Your task to perform on an android device: toggle priority inbox in the gmail app Image 0: 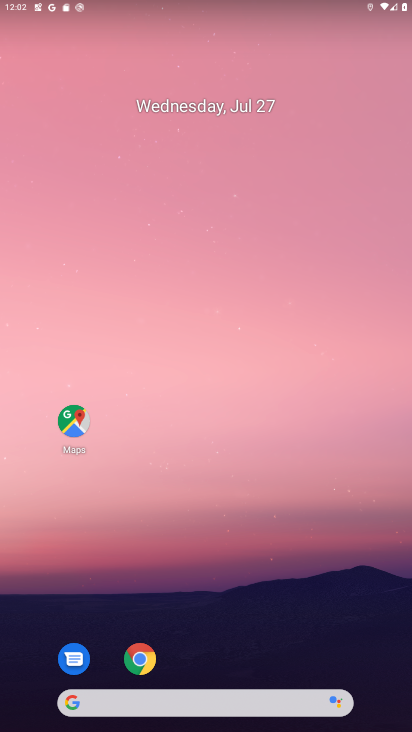
Step 0: drag from (297, 698) to (344, 21)
Your task to perform on an android device: toggle priority inbox in the gmail app Image 1: 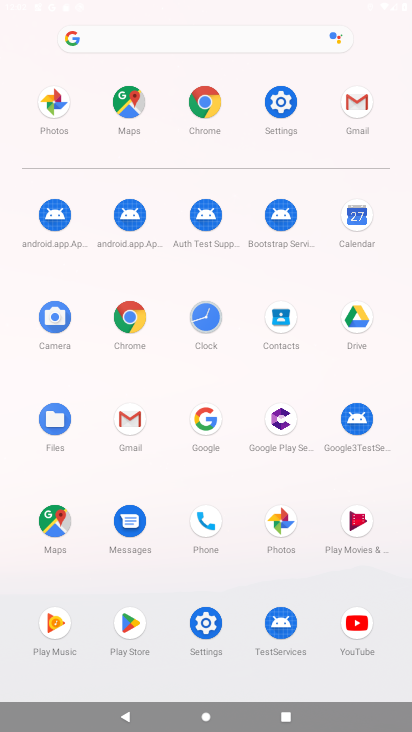
Step 1: click (132, 412)
Your task to perform on an android device: toggle priority inbox in the gmail app Image 2: 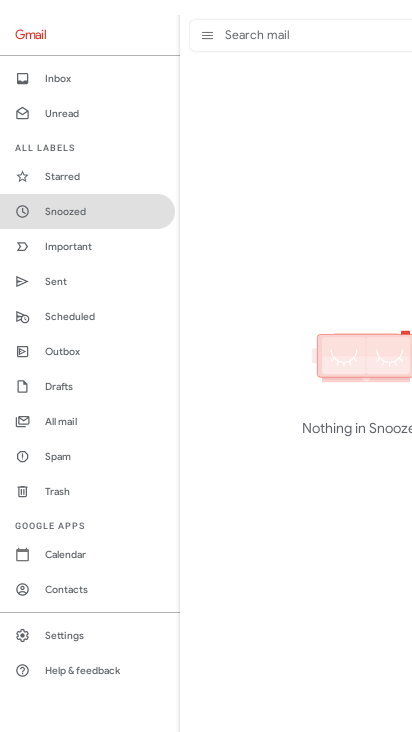
Step 2: click (80, 632)
Your task to perform on an android device: toggle priority inbox in the gmail app Image 3: 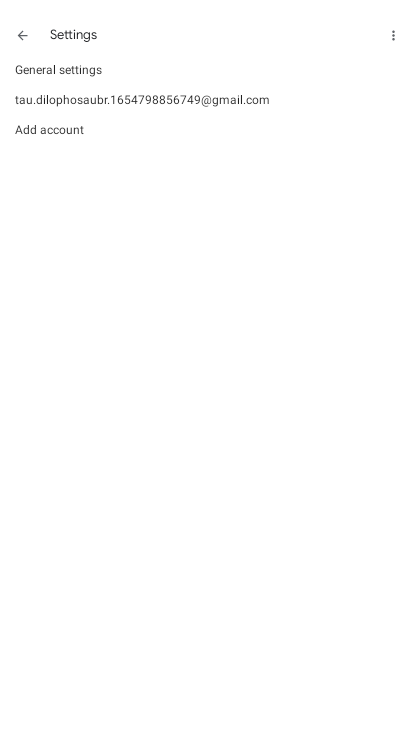
Step 3: click (109, 92)
Your task to perform on an android device: toggle priority inbox in the gmail app Image 4: 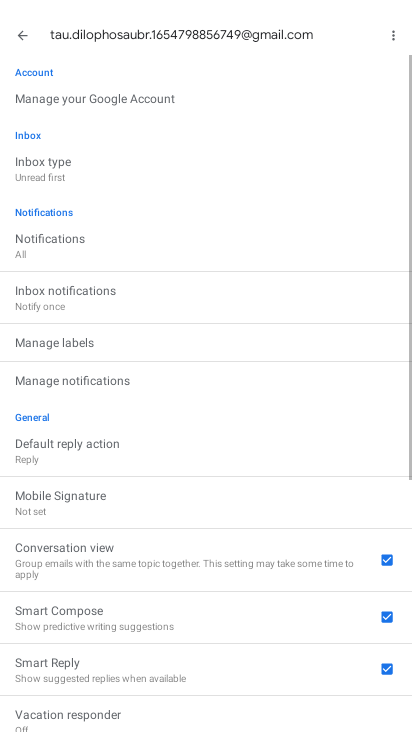
Step 4: click (72, 167)
Your task to perform on an android device: toggle priority inbox in the gmail app Image 5: 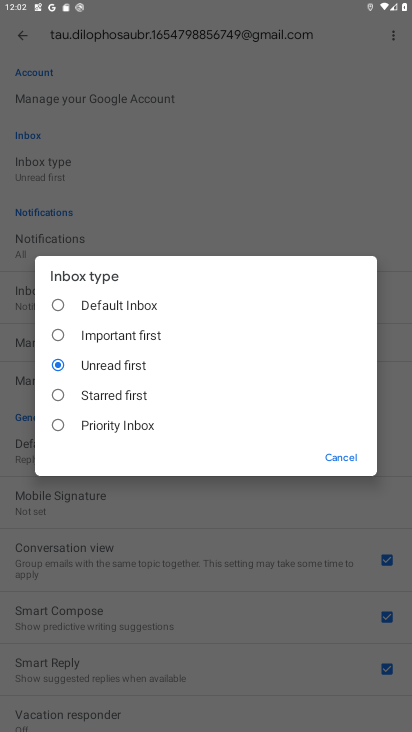
Step 5: click (64, 420)
Your task to perform on an android device: toggle priority inbox in the gmail app Image 6: 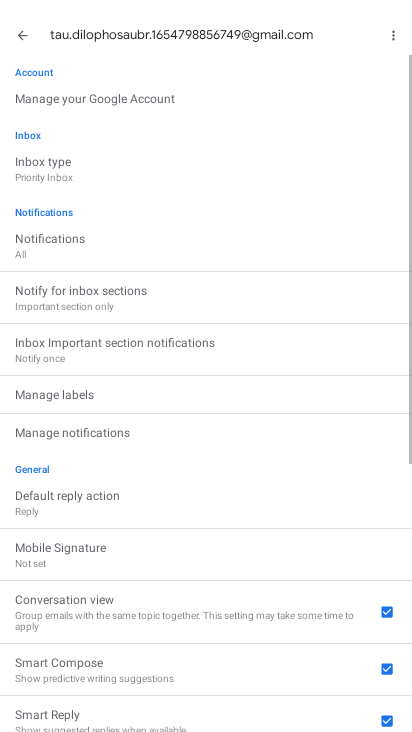
Step 6: task complete